Your task to perform on an android device: turn off data saver in the chrome app Image 0: 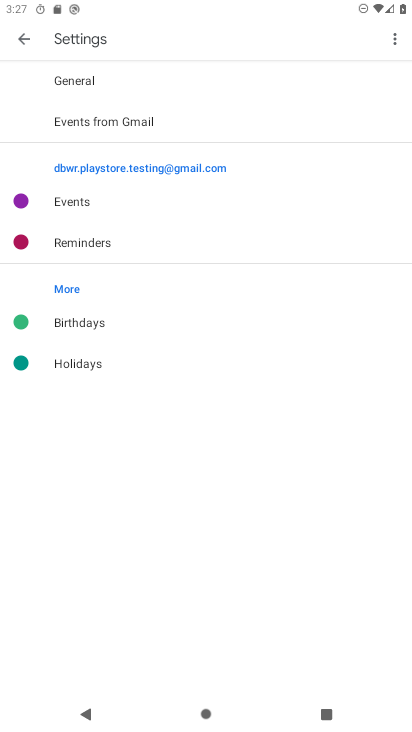
Step 0: press home button
Your task to perform on an android device: turn off data saver in the chrome app Image 1: 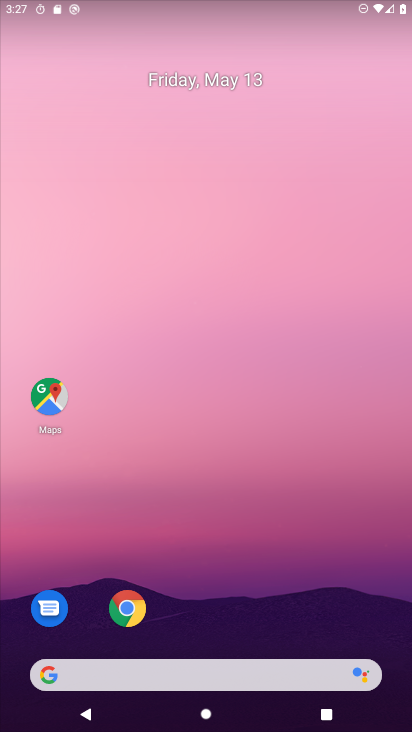
Step 1: click (116, 601)
Your task to perform on an android device: turn off data saver in the chrome app Image 2: 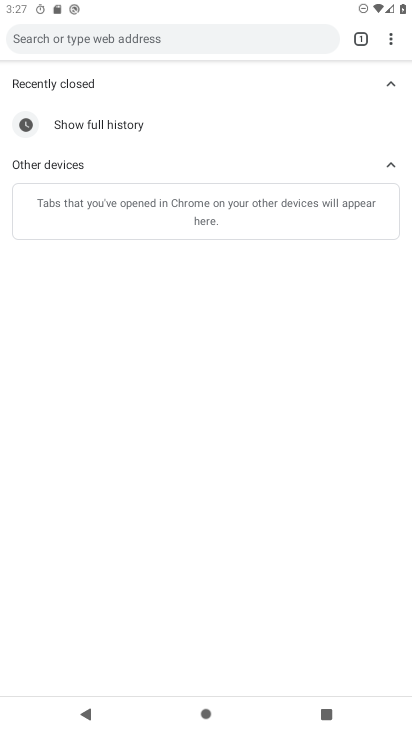
Step 2: drag from (391, 33) to (322, 333)
Your task to perform on an android device: turn off data saver in the chrome app Image 3: 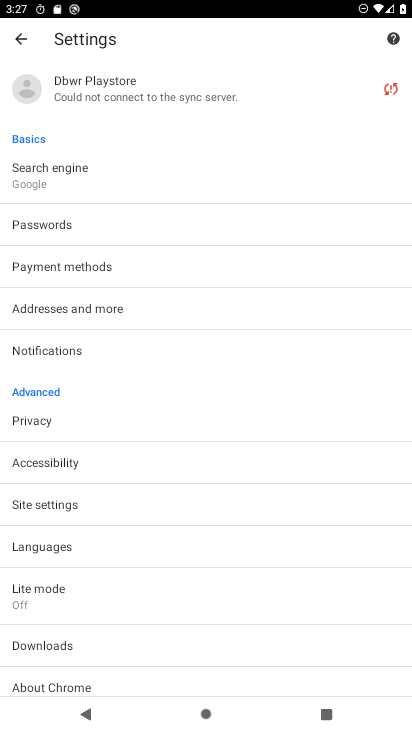
Step 3: click (45, 580)
Your task to perform on an android device: turn off data saver in the chrome app Image 4: 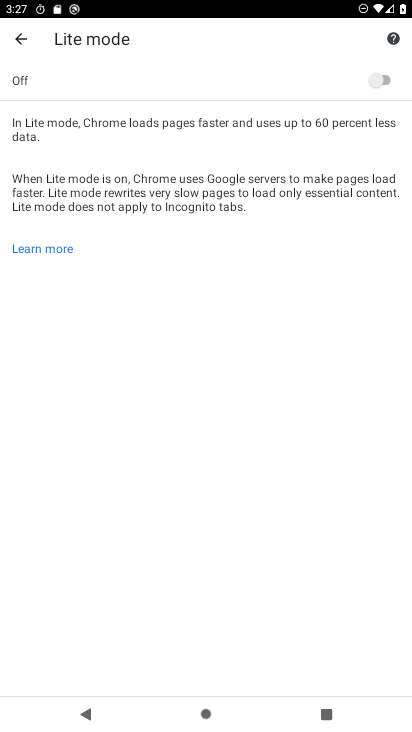
Step 4: task complete